Your task to perform on an android device: Open Youtube and go to the subscriptions tab Image 0: 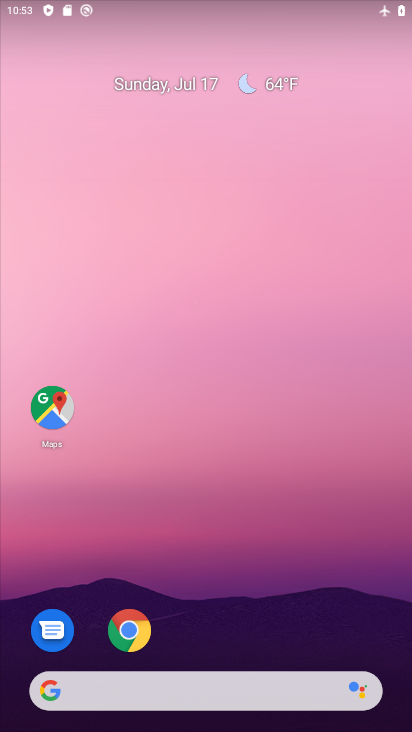
Step 0: drag from (378, 633) to (307, 130)
Your task to perform on an android device: Open Youtube and go to the subscriptions tab Image 1: 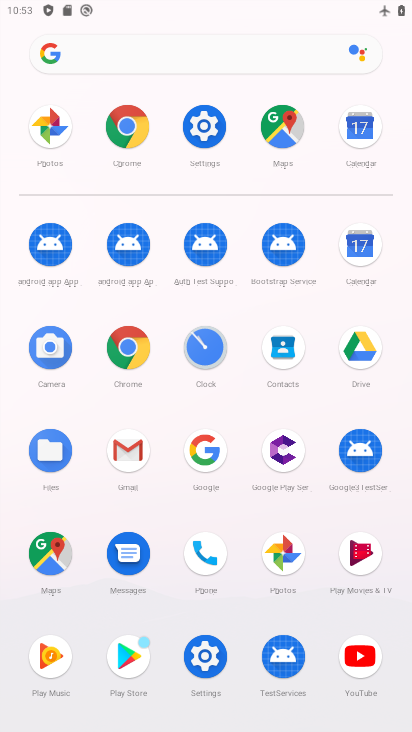
Step 1: click (359, 658)
Your task to perform on an android device: Open Youtube and go to the subscriptions tab Image 2: 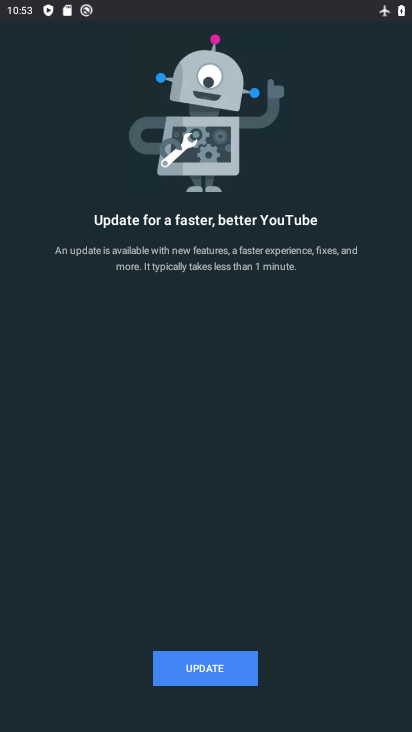
Step 2: click (203, 669)
Your task to perform on an android device: Open Youtube and go to the subscriptions tab Image 3: 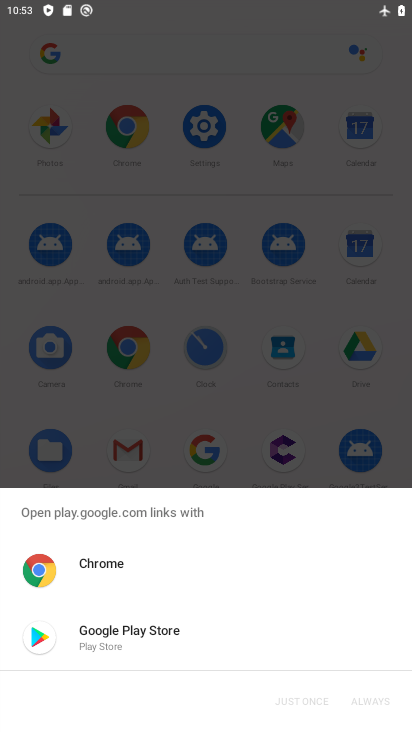
Step 3: click (117, 652)
Your task to perform on an android device: Open Youtube and go to the subscriptions tab Image 4: 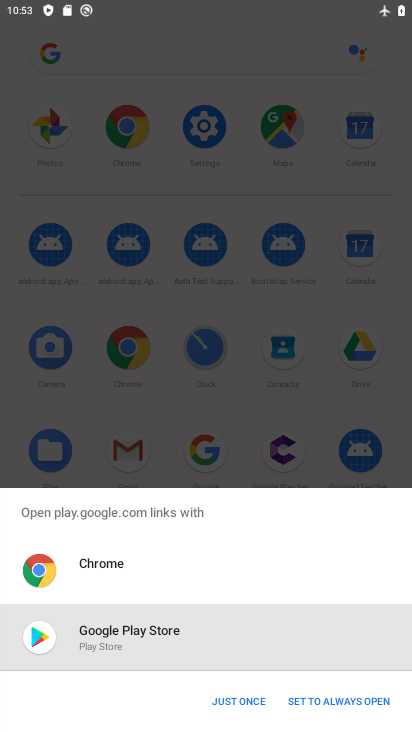
Step 4: click (243, 696)
Your task to perform on an android device: Open Youtube and go to the subscriptions tab Image 5: 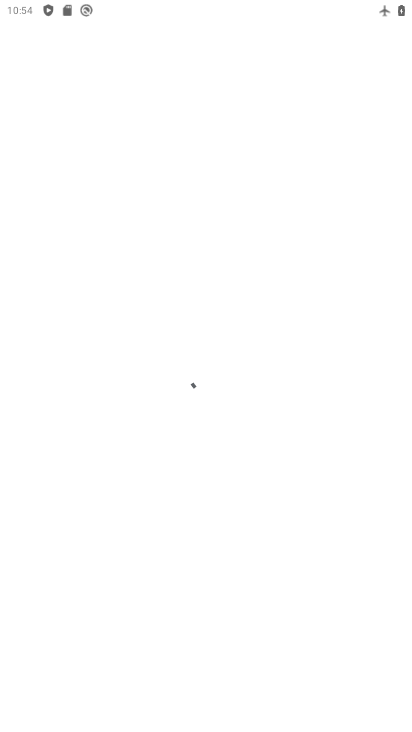
Step 5: task complete